Your task to perform on an android device: choose inbox layout in the gmail app Image 0: 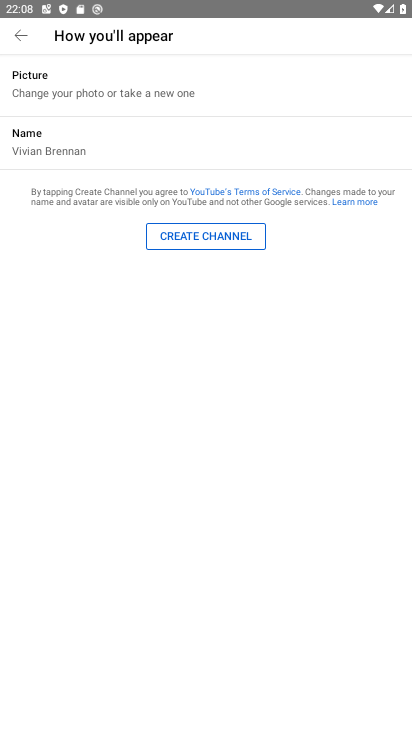
Step 0: drag from (336, 349) to (325, 164)
Your task to perform on an android device: choose inbox layout in the gmail app Image 1: 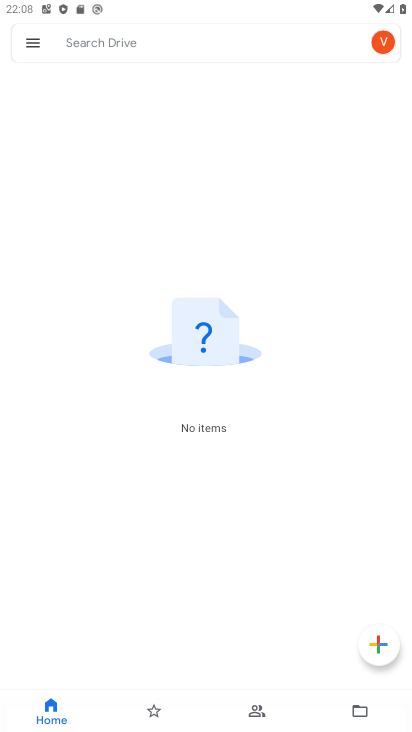
Step 1: press home button
Your task to perform on an android device: choose inbox layout in the gmail app Image 2: 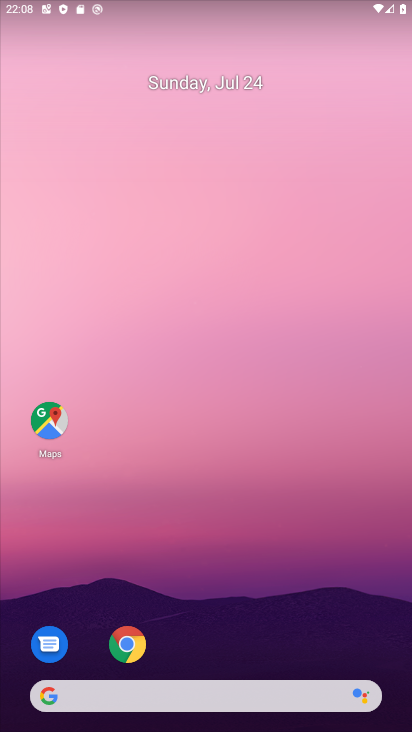
Step 2: drag from (380, 653) to (334, 82)
Your task to perform on an android device: choose inbox layout in the gmail app Image 3: 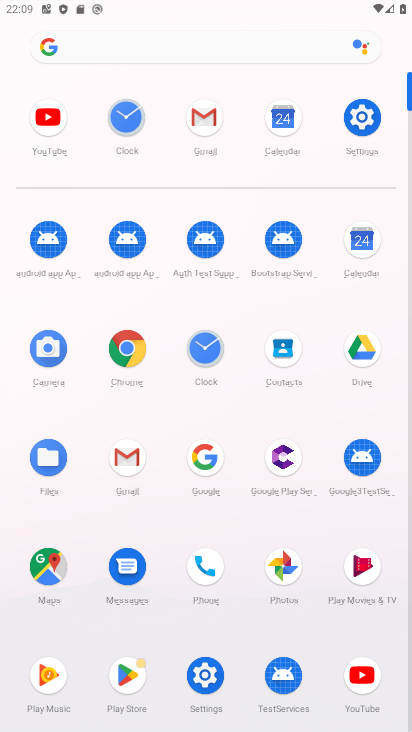
Step 3: click (127, 459)
Your task to perform on an android device: choose inbox layout in the gmail app Image 4: 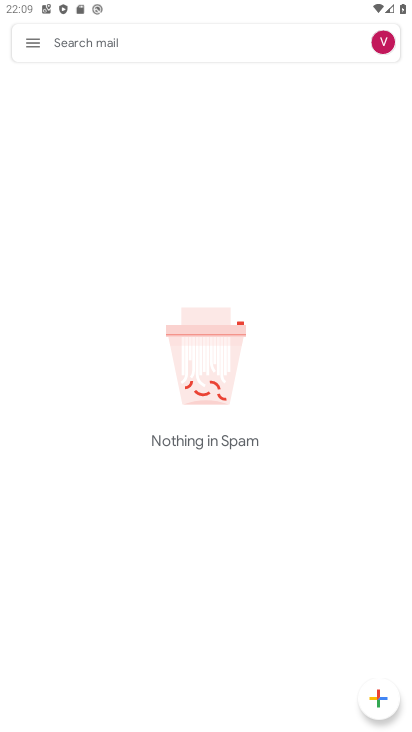
Step 4: click (29, 41)
Your task to perform on an android device: choose inbox layout in the gmail app Image 5: 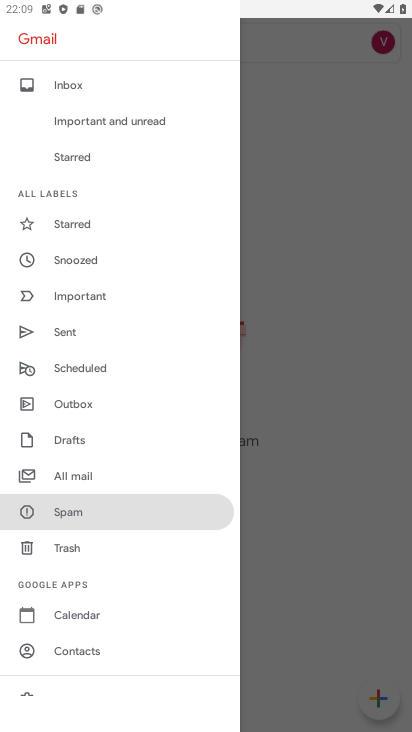
Step 5: drag from (159, 610) to (150, 160)
Your task to perform on an android device: choose inbox layout in the gmail app Image 6: 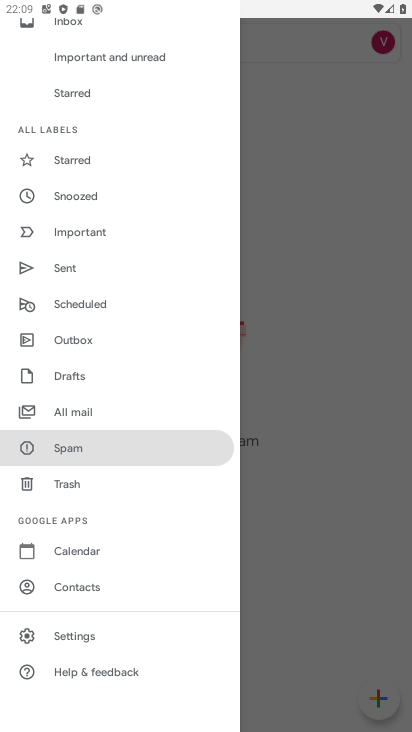
Step 6: click (81, 633)
Your task to perform on an android device: choose inbox layout in the gmail app Image 7: 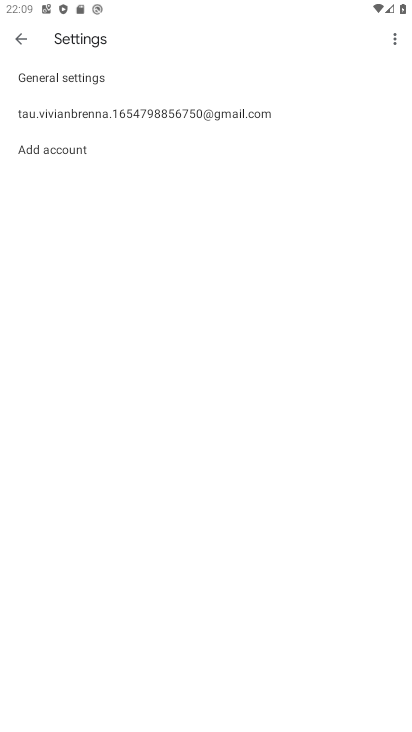
Step 7: click (111, 114)
Your task to perform on an android device: choose inbox layout in the gmail app Image 8: 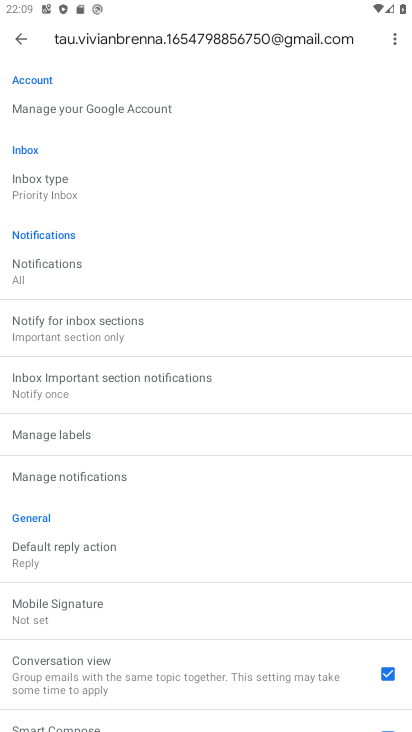
Step 8: click (28, 181)
Your task to perform on an android device: choose inbox layout in the gmail app Image 9: 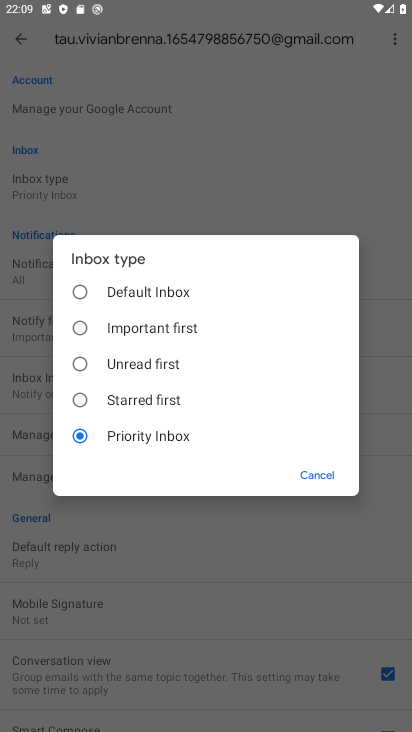
Step 9: click (81, 293)
Your task to perform on an android device: choose inbox layout in the gmail app Image 10: 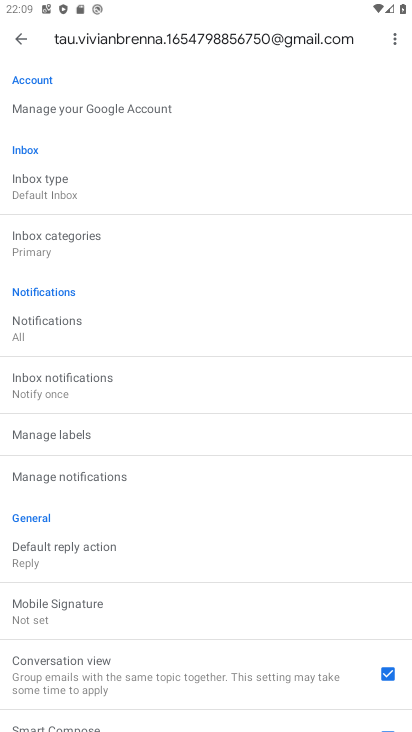
Step 10: task complete